Your task to perform on an android device: Open Google Image 0: 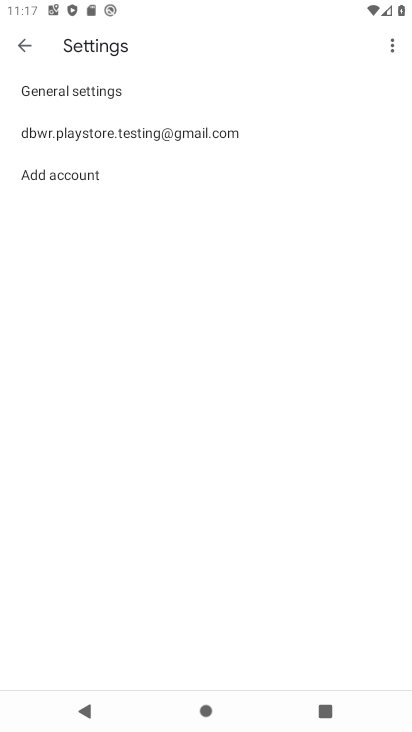
Step 0: press home button
Your task to perform on an android device: Open Google Image 1: 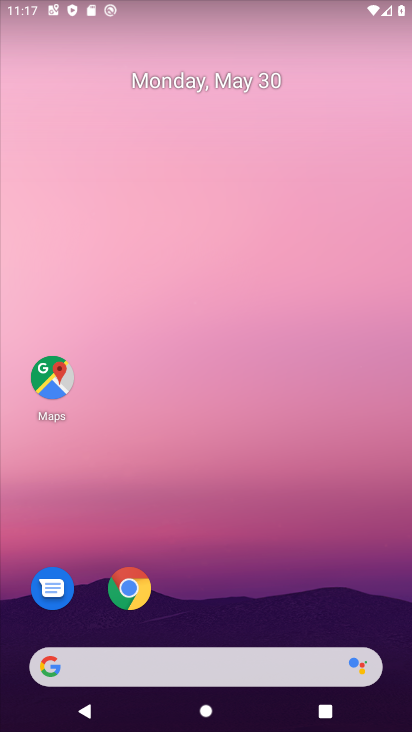
Step 1: drag from (234, 575) to (229, 0)
Your task to perform on an android device: Open Google Image 2: 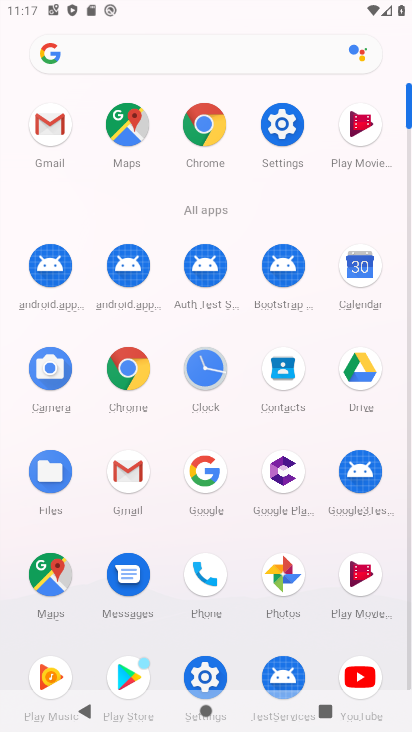
Step 2: click (203, 470)
Your task to perform on an android device: Open Google Image 3: 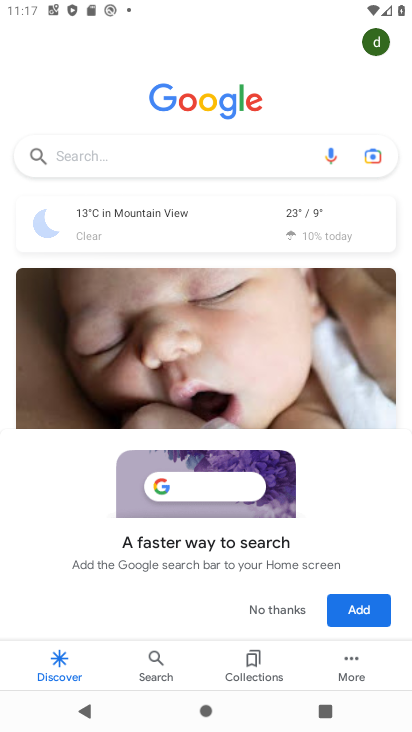
Step 3: click (281, 609)
Your task to perform on an android device: Open Google Image 4: 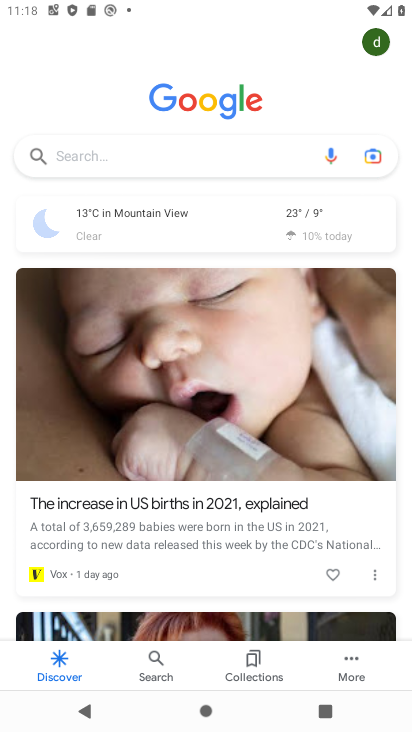
Step 4: task complete